Your task to perform on an android device: open app "Instagram" Image 0: 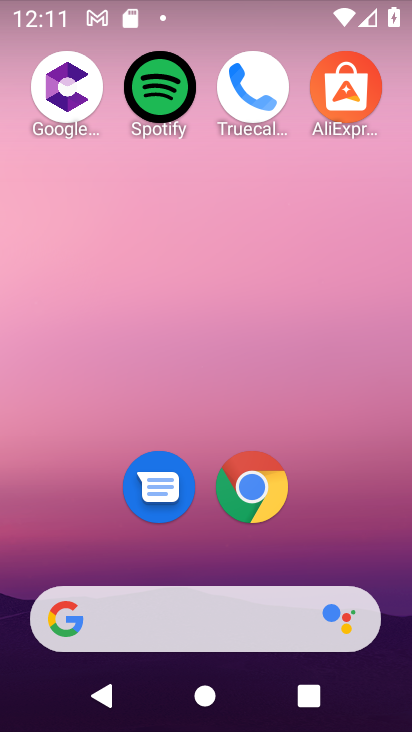
Step 0: drag from (222, 716) to (222, 336)
Your task to perform on an android device: open app "Instagram" Image 1: 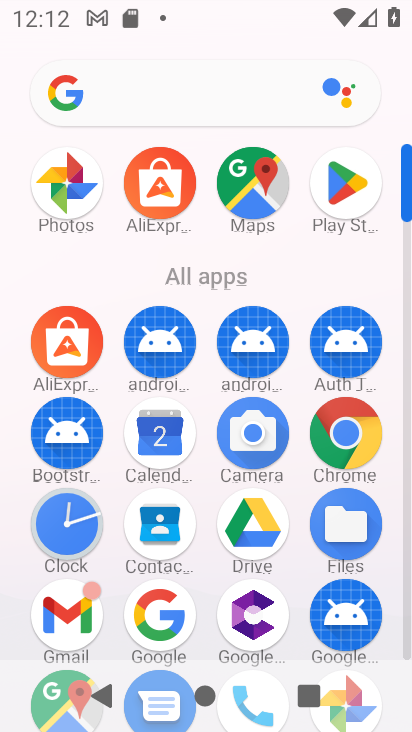
Step 1: click (349, 186)
Your task to perform on an android device: open app "Instagram" Image 2: 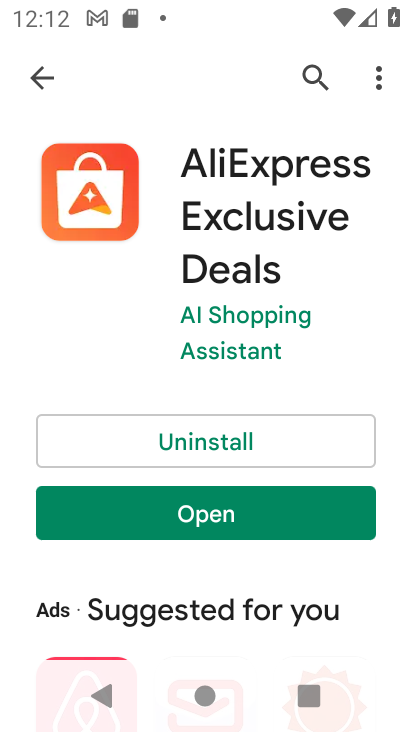
Step 2: click (46, 75)
Your task to perform on an android device: open app "Instagram" Image 3: 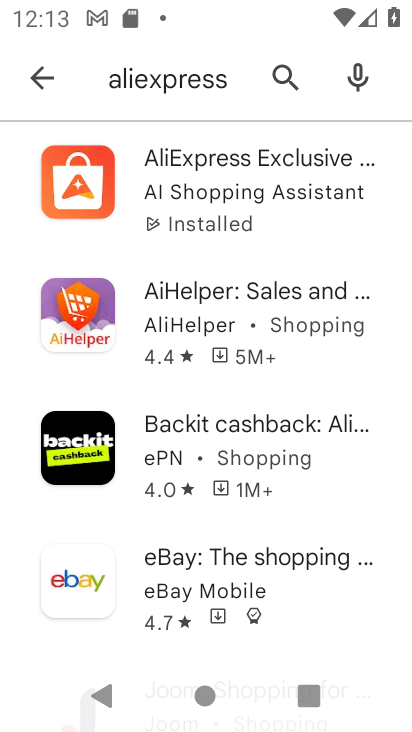
Step 3: click (54, 65)
Your task to perform on an android device: open app "Instagram" Image 4: 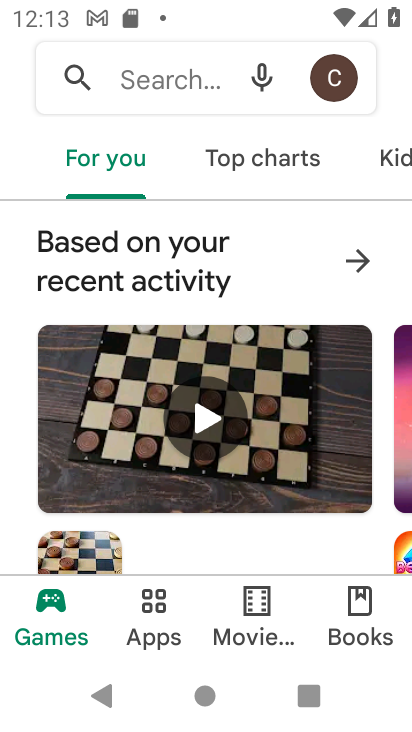
Step 4: click (179, 88)
Your task to perform on an android device: open app "Instagram" Image 5: 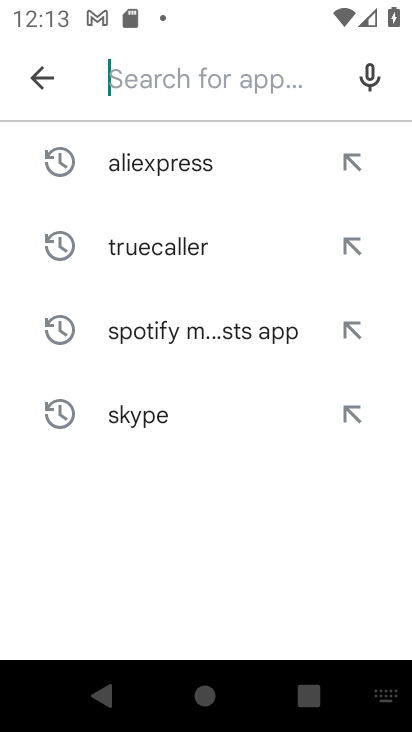
Step 5: type "Instagram"
Your task to perform on an android device: open app "Instagram" Image 6: 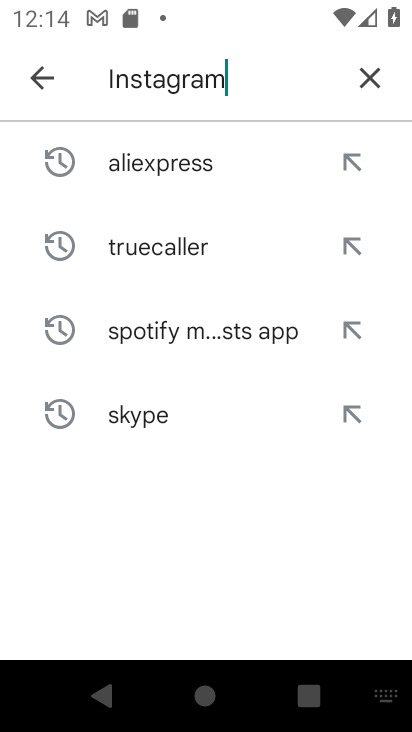
Step 6: type ""
Your task to perform on an android device: open app "Instagram" Image 7: 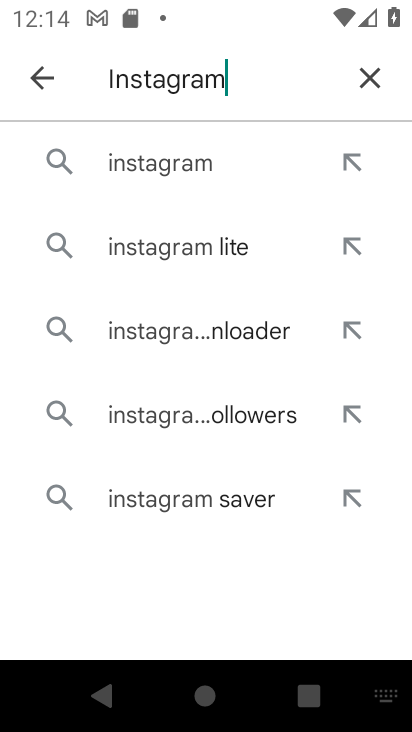
Step 7: click (183, 157)
Your task to perform on an android device: open app "Instagram" Image 8: 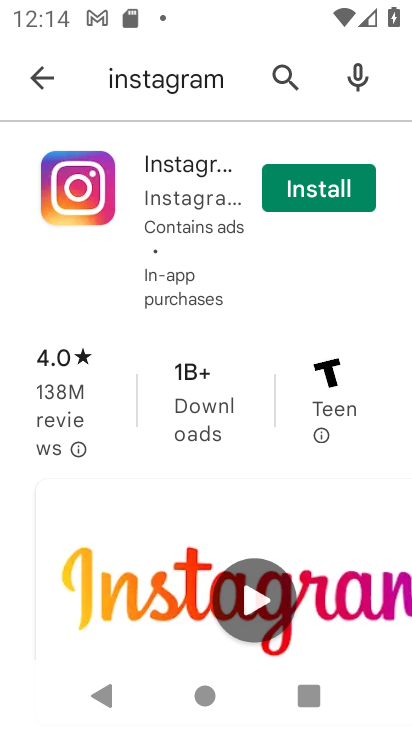
Step 8: task complete